Your task to perform on an android device: Go to Maps Image 0: 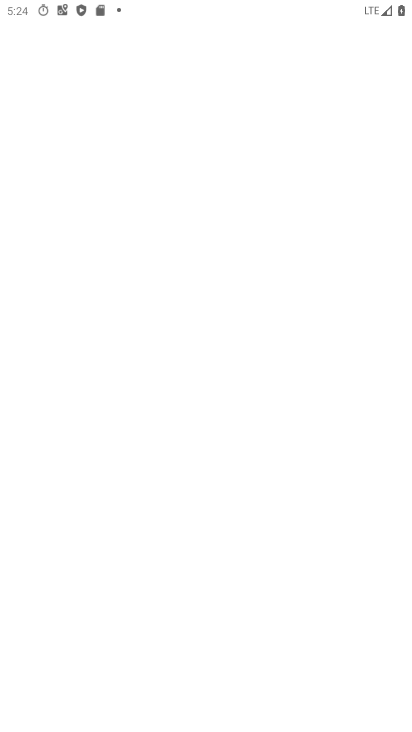
Step 0: drag from (215, 704) to (220, 269)
Your task to perform on an android device: Go to Maps Image 1: 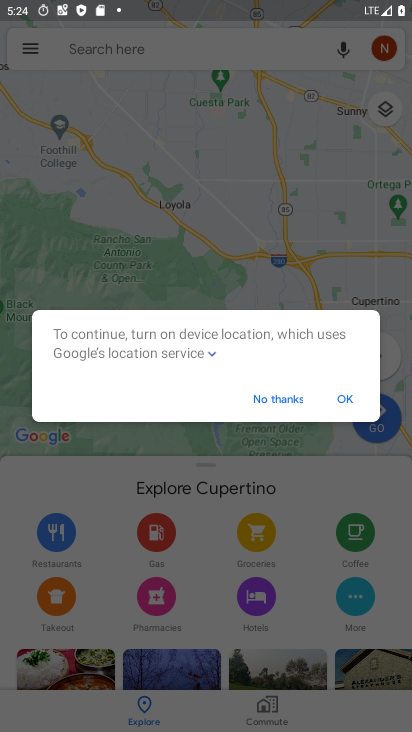
Step 1: press home button
Your task to perform on an android device: Go to Maps Image 2: 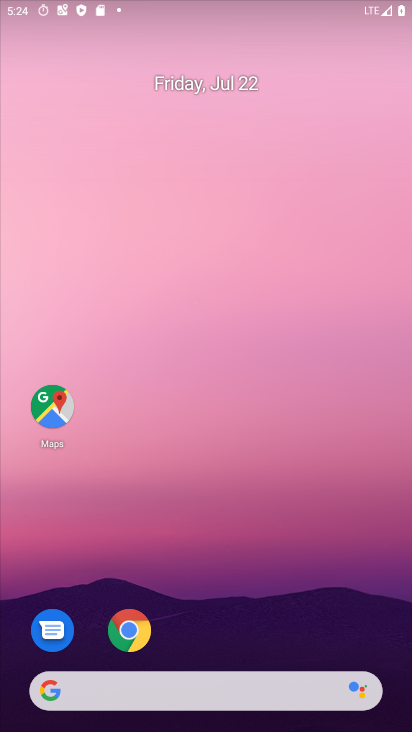
Step 2: drag from (219, 671) to (93, 108)
Your task to perform on an android device: Go to Maps Image 3: 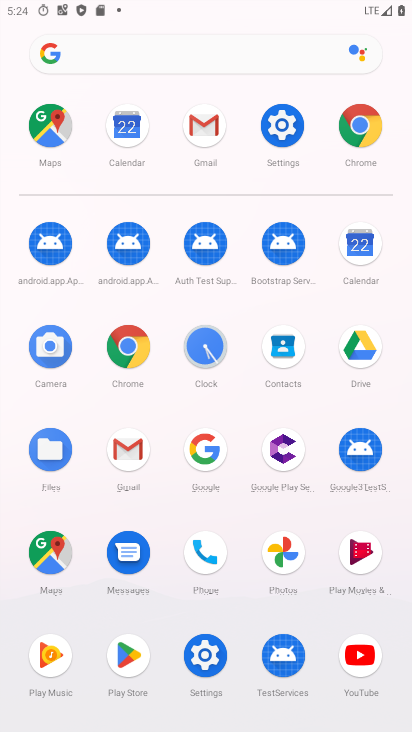
Step 3: click (57, 548)
Your task to perform on an android device: Go to Maps Image 4: 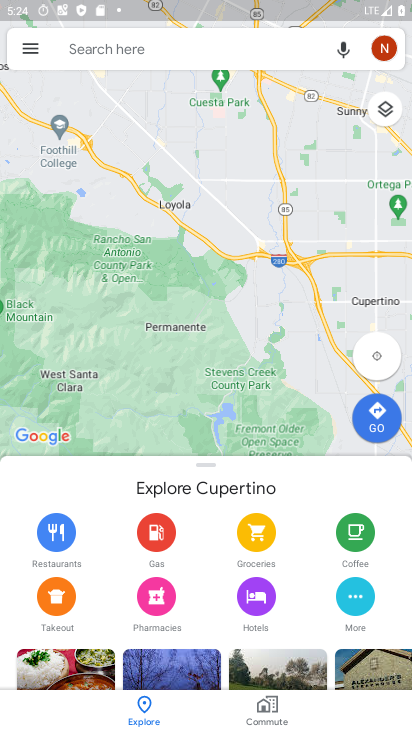
Step 4: task complete